Your task to perform on an android device: Go to Maps Image 0: 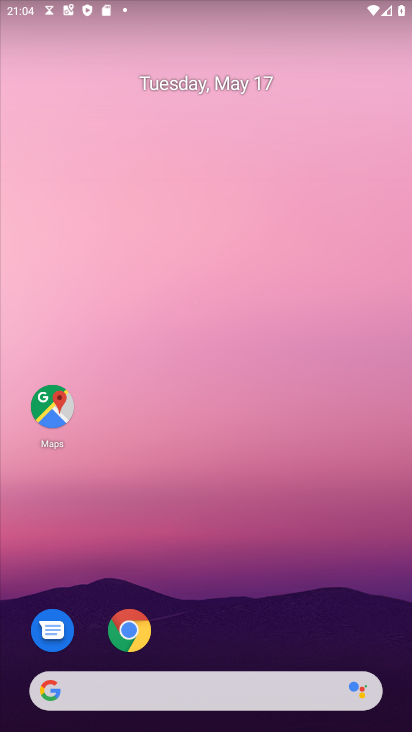
Step 0: click (60, 402)
Your task to perform on an android device: Go to Maps Image 1: 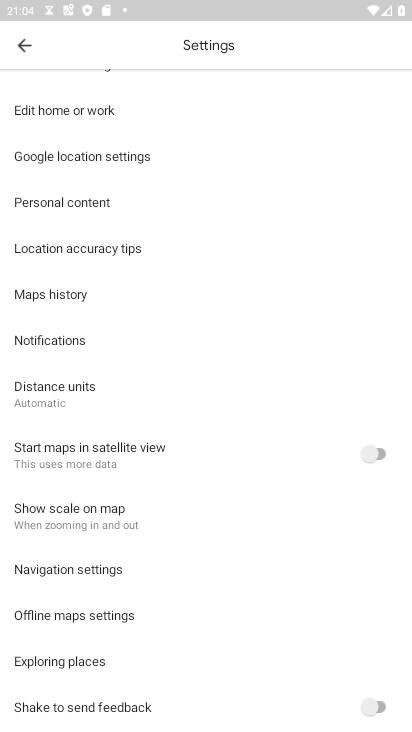
Step 1: press back button
Your task to perform on an android device: Go to Maps Image 2: 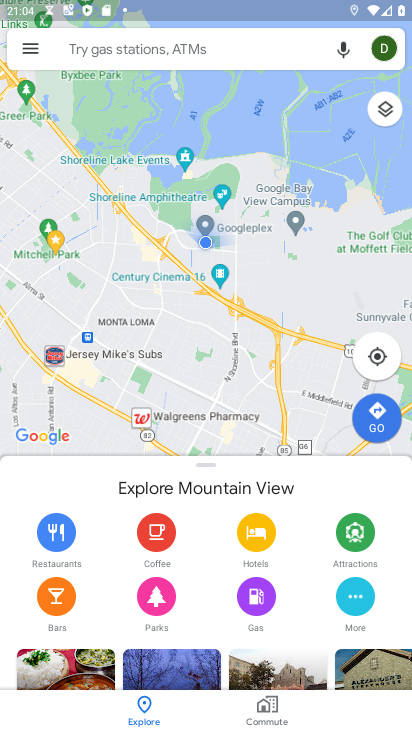
Step 2: drag from (199, 467) to (177, 683)
Your task to perform on an android device: Go to Maps Image 3: 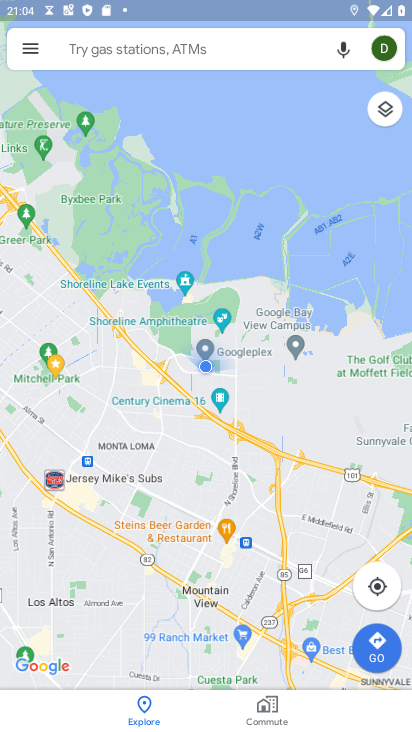
Step 3: click (373, 574)
Your task to perform on an android device: Go to Maps Image 4: 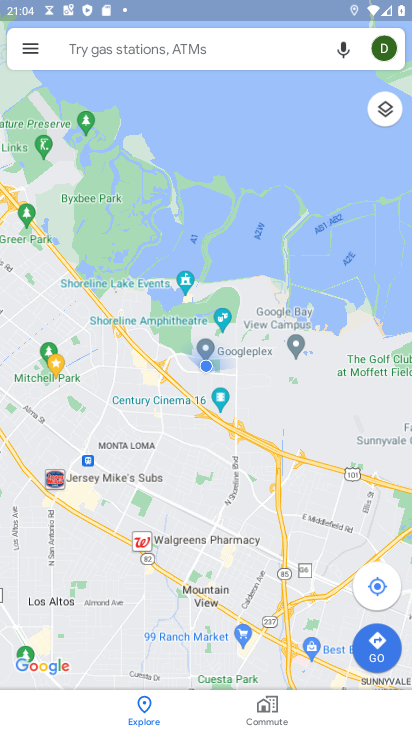
Step 4: task complete